Your task to perform on an android device: What's on my calendar today? Image 0: 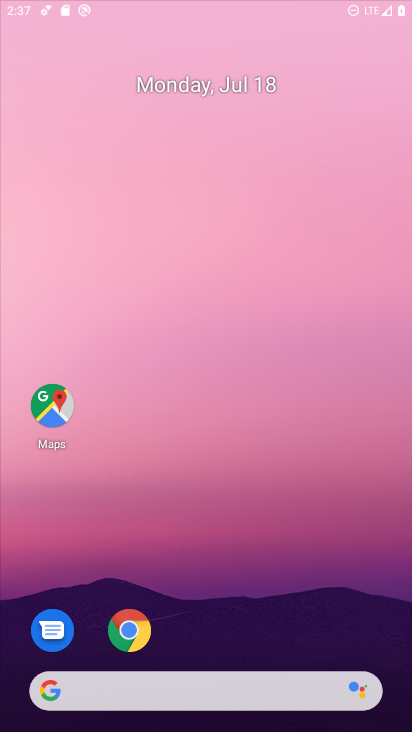
Step 0: press home button
Your task to perform on an android device: What's on my calendar today? Image 1: 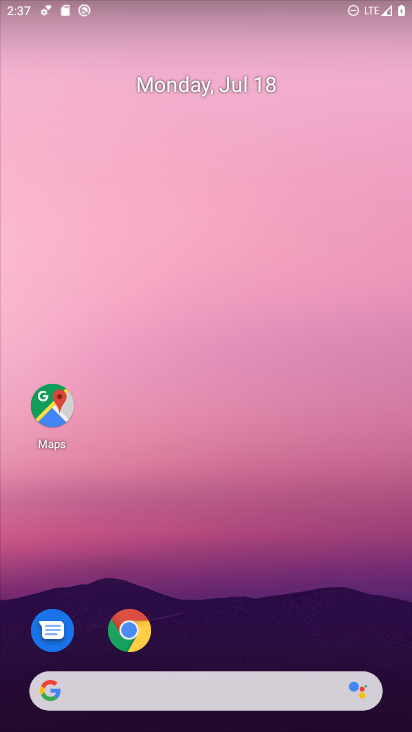
Step 1: drag from (264, 636) to (327, 66)
Your task to perform on an android device: What's on my calendar today? Image 2: 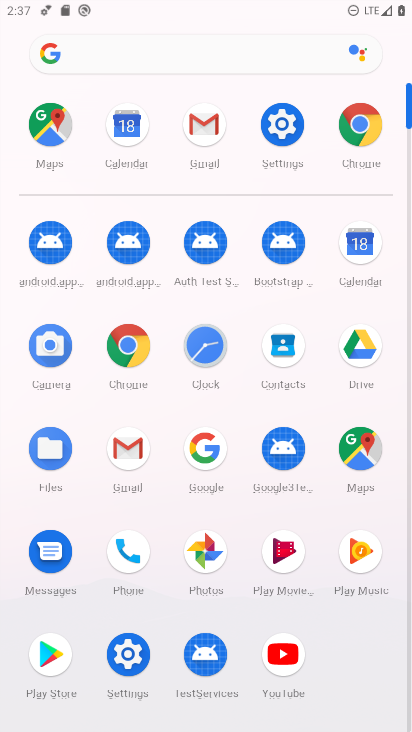
Step 2: click (348, 242)
Your task to perform on an android device: What's on my calendar today? Image 3: 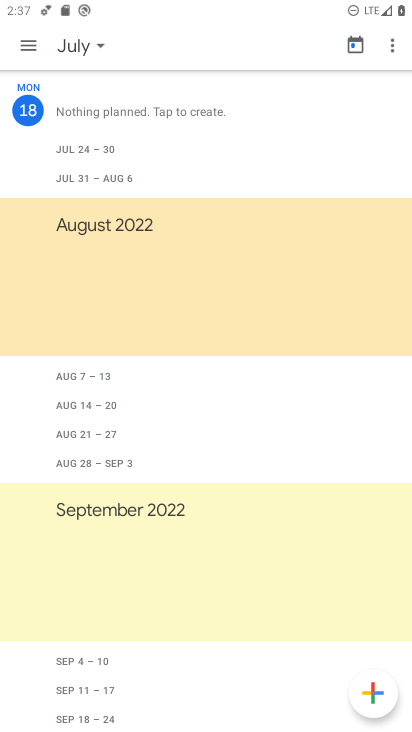
Step 3: click (21, 113)
Your task to perform on an android device: What's on my calendar today? Image 4: 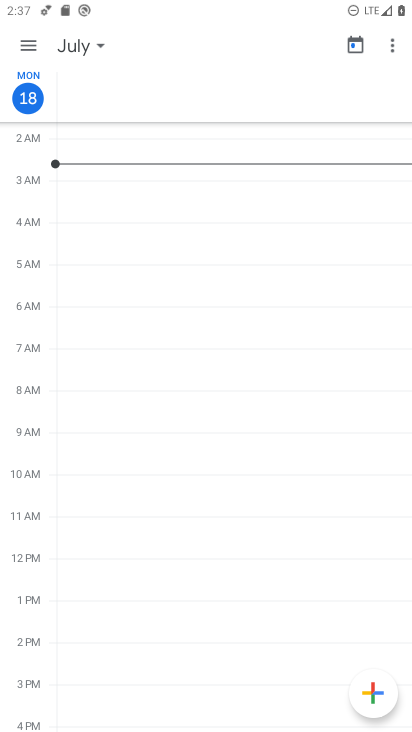
Step 4: task complete